Your task to perform on an android device: Find coffee shops on Maps Image 0: 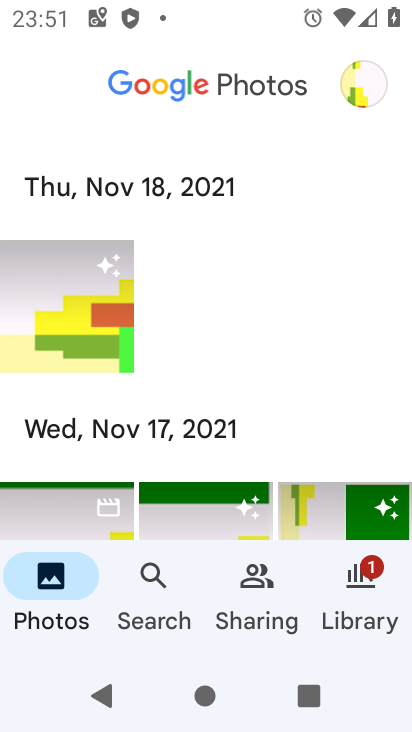
Step 0: press home button
Your task to perform on an android device: Find coffee shops on Maps Image 1: 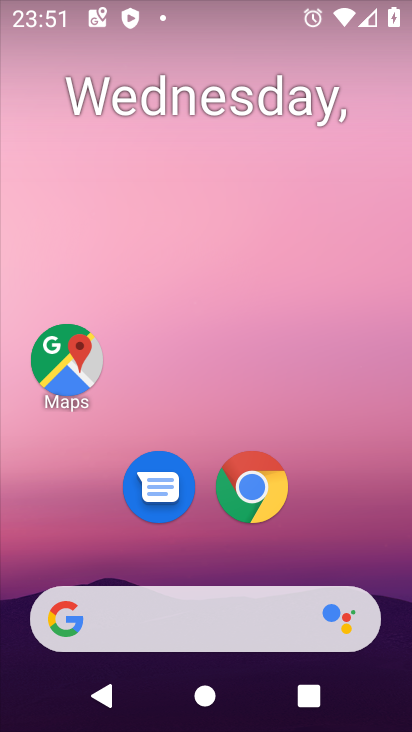
Step 1: click (72, 359)
Your task to perform on an android device: Find coffee shops on Maps Image 2: 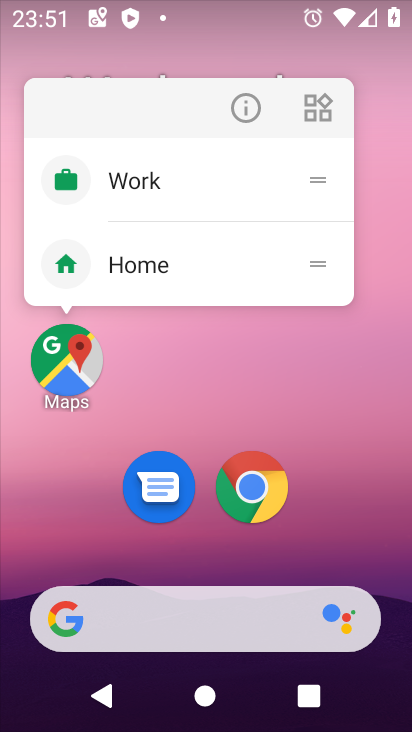
Step 2: click (65, 361)
Your task to perform on an android device: Find coffee shops on Maps Image 3: 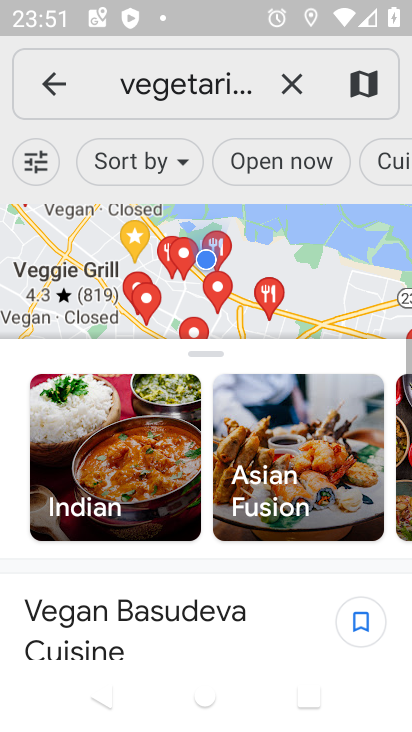
Step 3: click (296, 81)
Your task to perform on an android device: Find coffee shops on Maps Image 4: 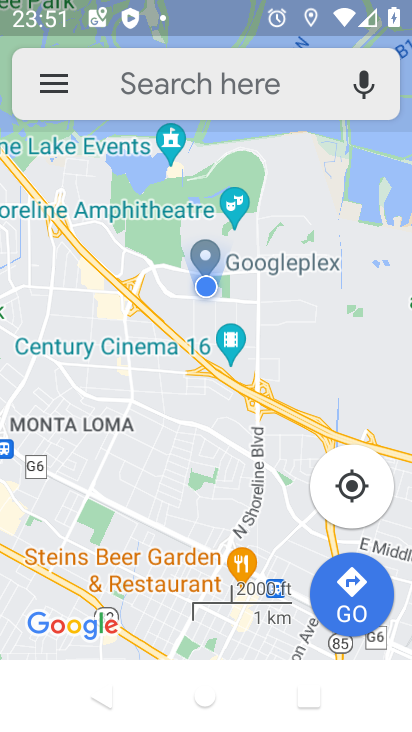
Step 4: click (128, 78)
Your task to perform on an android device: Find coffee shops on Maps Image 5: 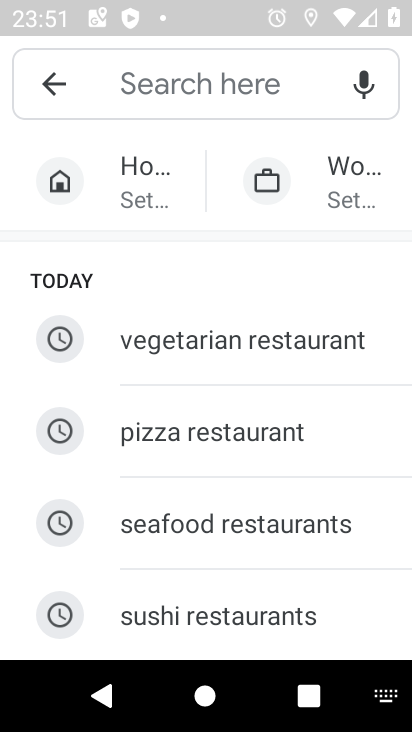
Step 5: type "coffee shops "
Your task to perform on an android device: Find coffee shops on Maps Image 6: 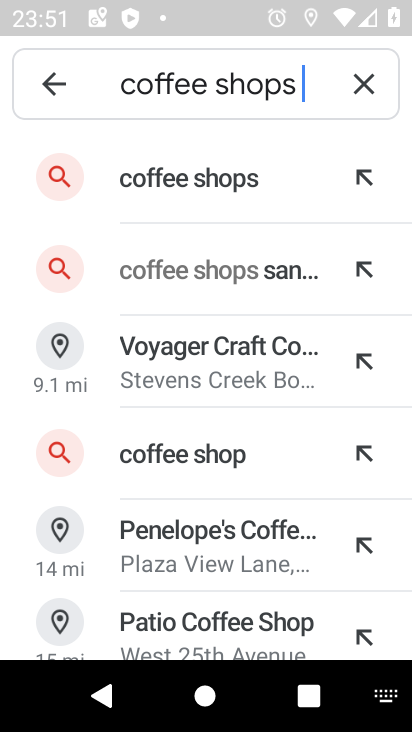
Step 6: click (178, 184)
Your task to perform on an android device: Find coffee shops on Maps Image 7: 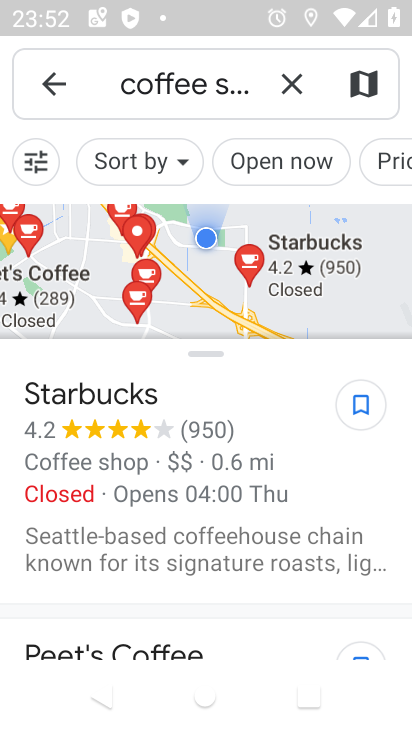
Step 7: task complete